Your task to perform on an android device: turn on location history Image 0: 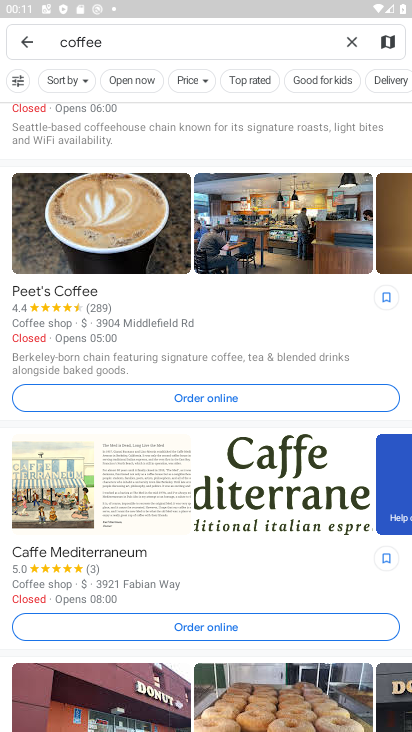
Step 0: press home button
Your task to perform on an android device: turn on location history Image 1: 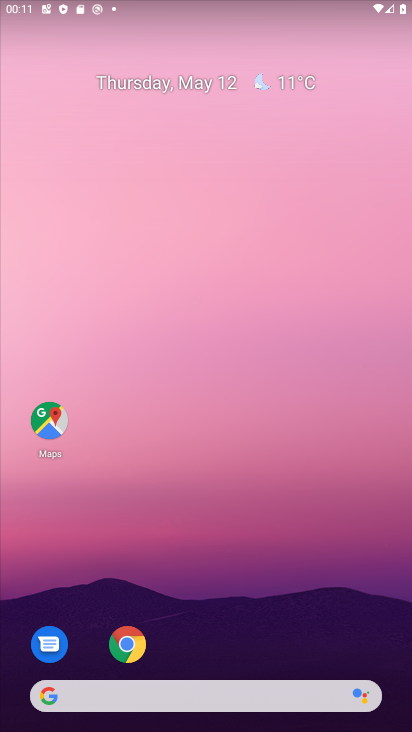
Step 1: drag from (216, 667) to (209, 174)
Your task to perform on an android device: turn on location history Image 2: 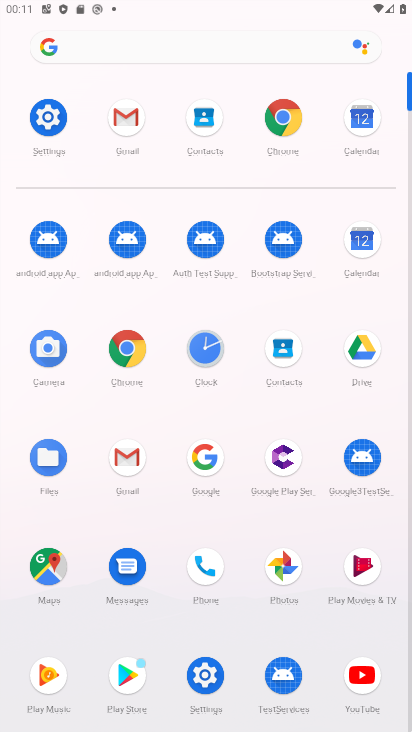
Step 2: click (49, 112)
Your task to perform on an android device: turn on location history Image 3: 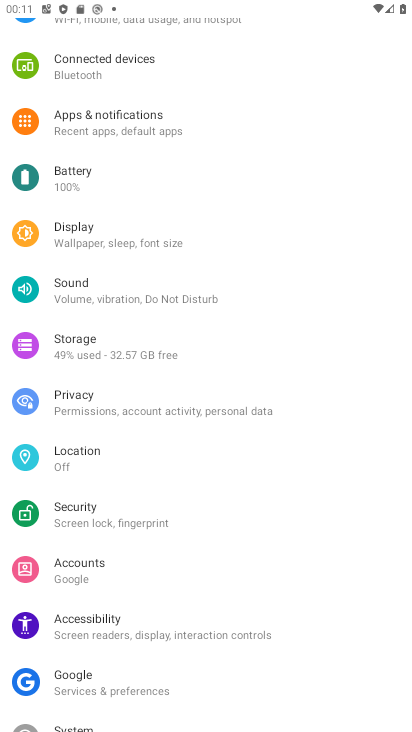
Step 3: click (92, 455)
Your task to perform on an android device: turn on location history Image 4: 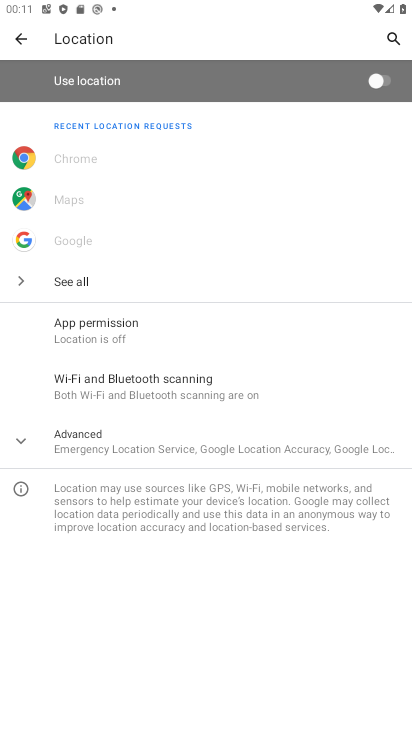
Step 4: click (18, 434)
Your task to perform on an android device: turn on location history Image 5: 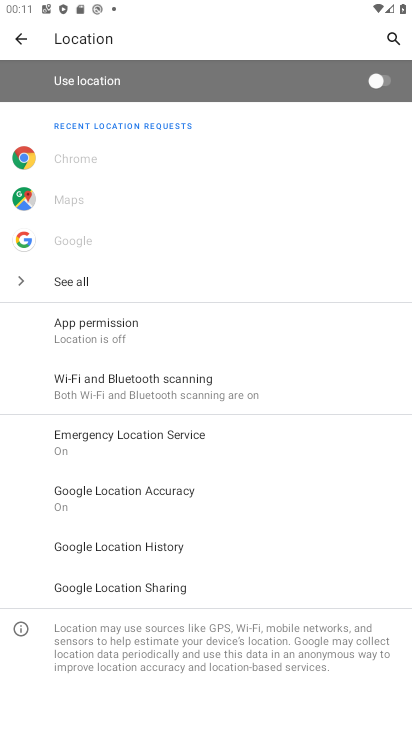
Step 5: click (192, 542)
Your task to perform on an android device: turn on location history Image 6: 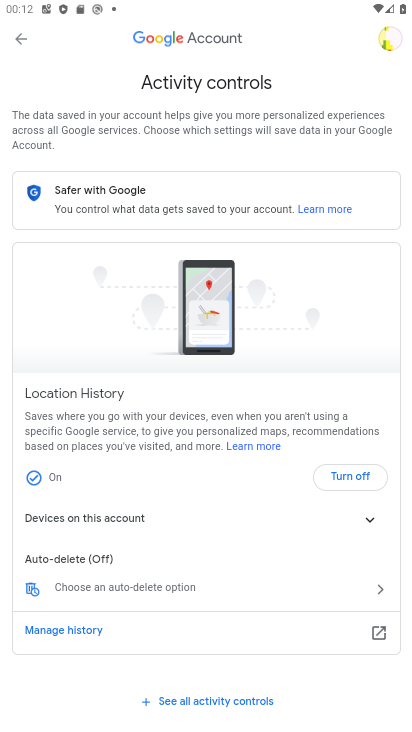
Step 6: task complete